Your task to perform on an android device: turn on priority inbox in the gmail app Image 0: 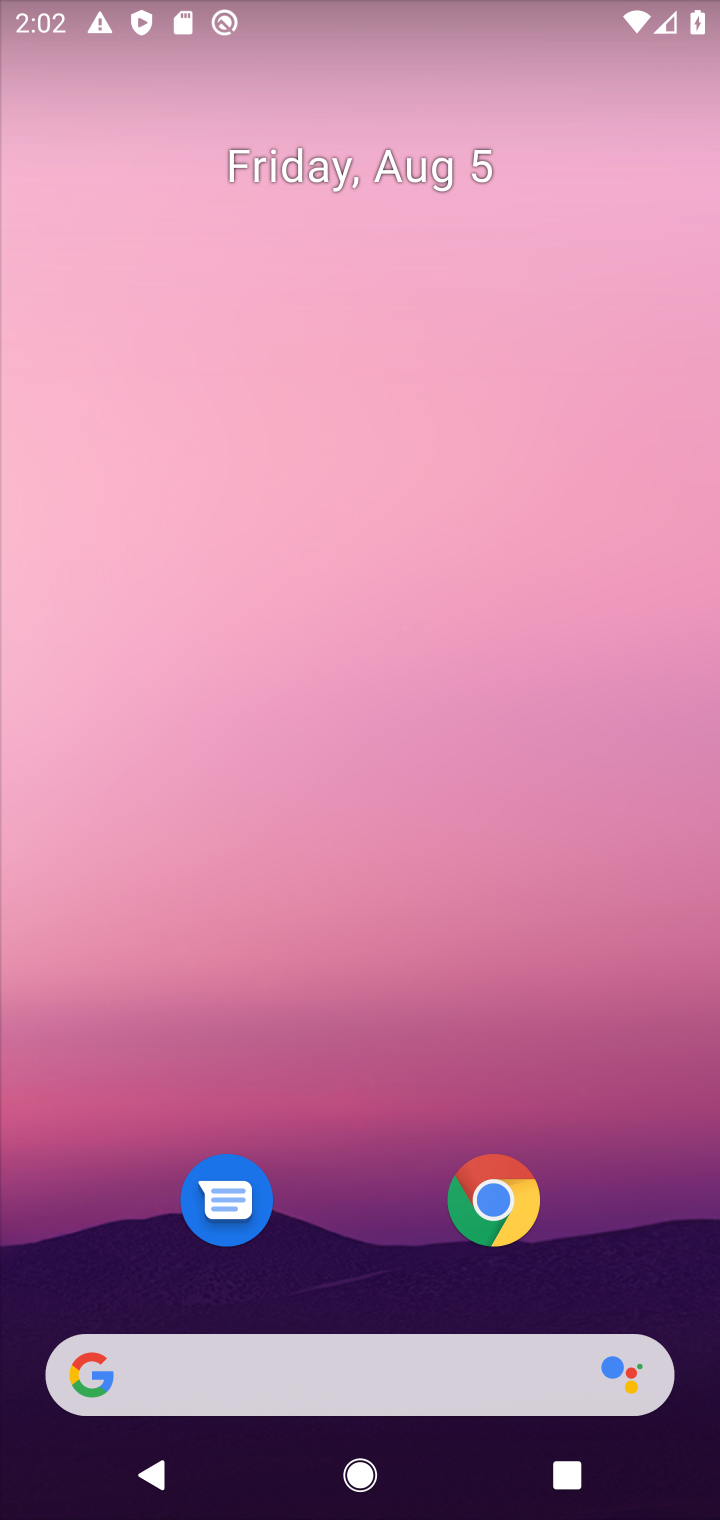
Step 0: drag from (386, 1033) to (340, 215)
Your task to perform on an android device: turn on priority inbox in the gmail app Image 1: 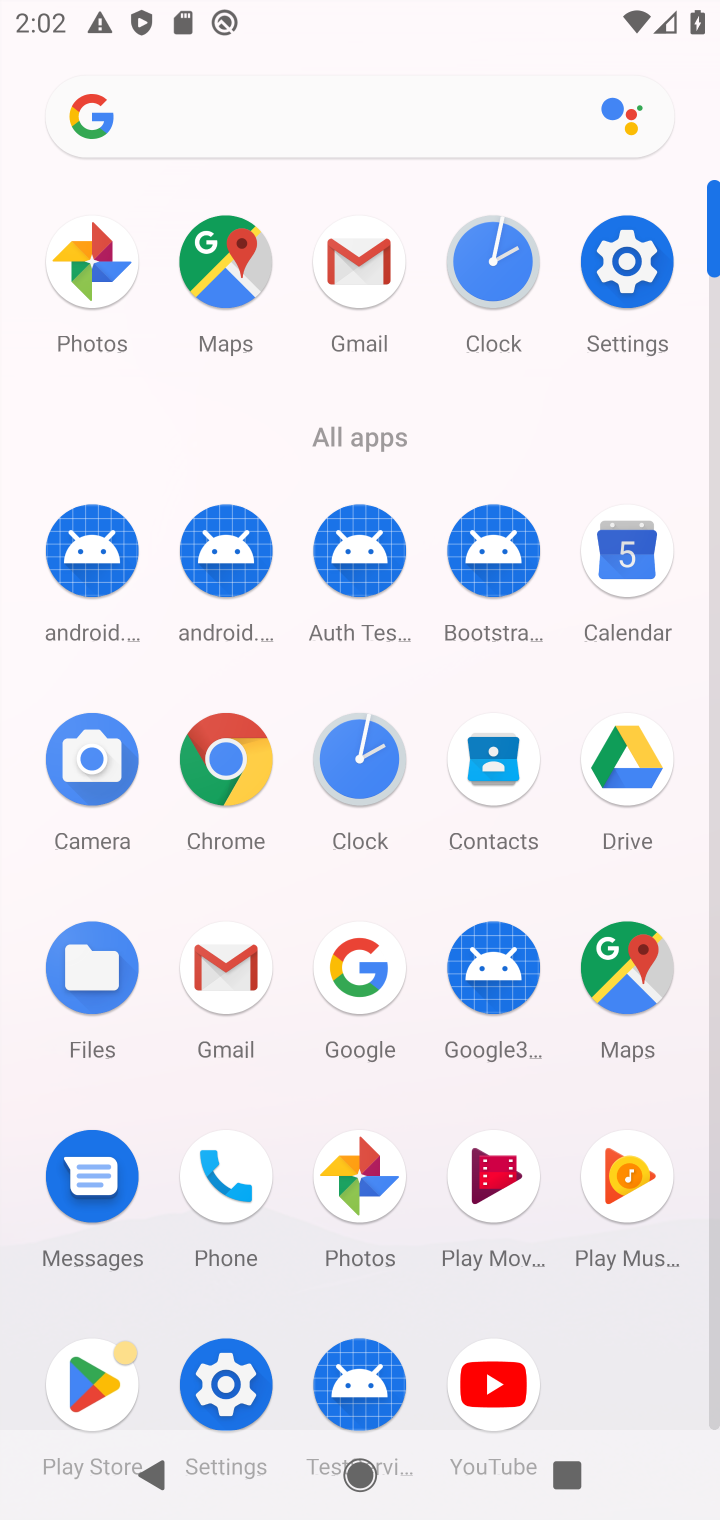
Step 1: click (340, 255)
Your task to perform on an android device: turn on priority inbox in the gmail app Image 2: 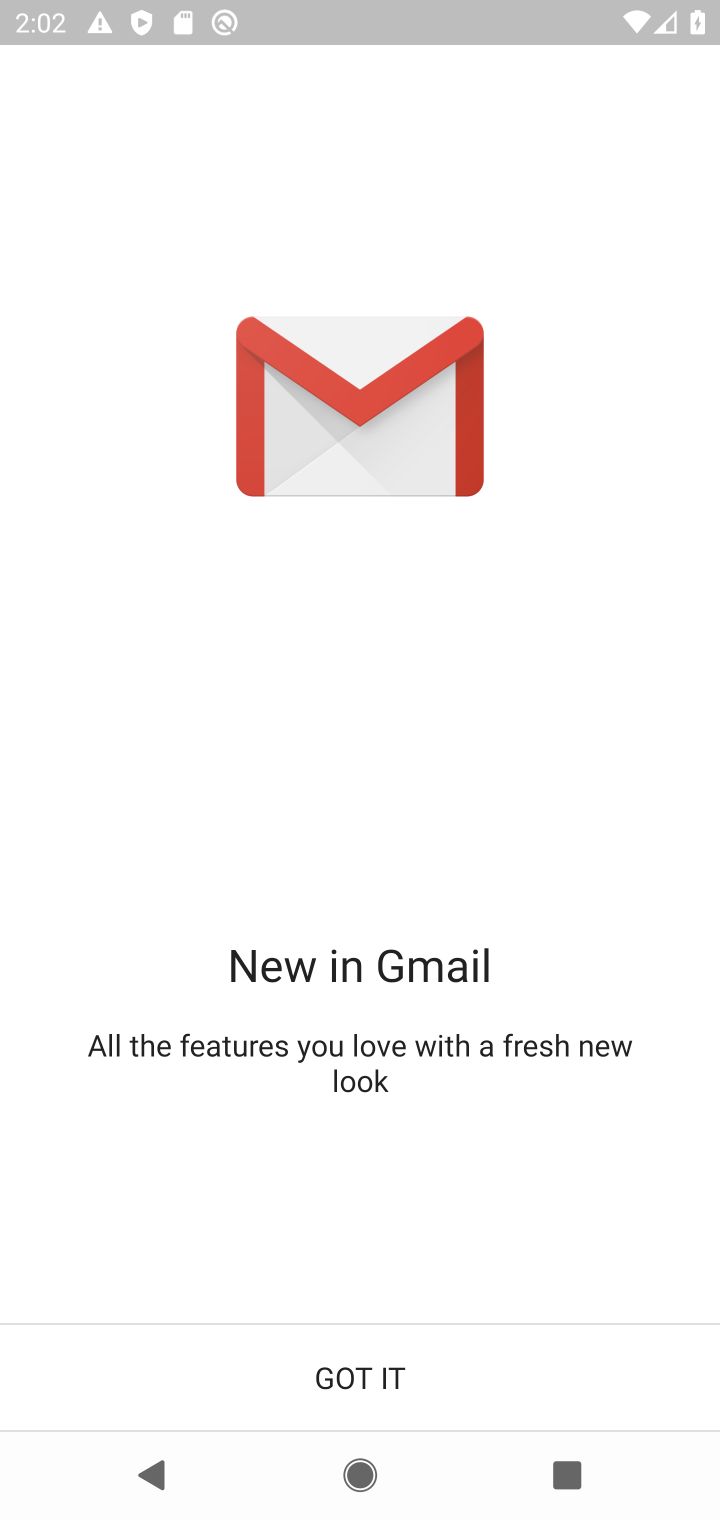
Step 2: click (471, 1354)
Your task to perform on an android device: turn on priority inbox in the gmail app Image 3: 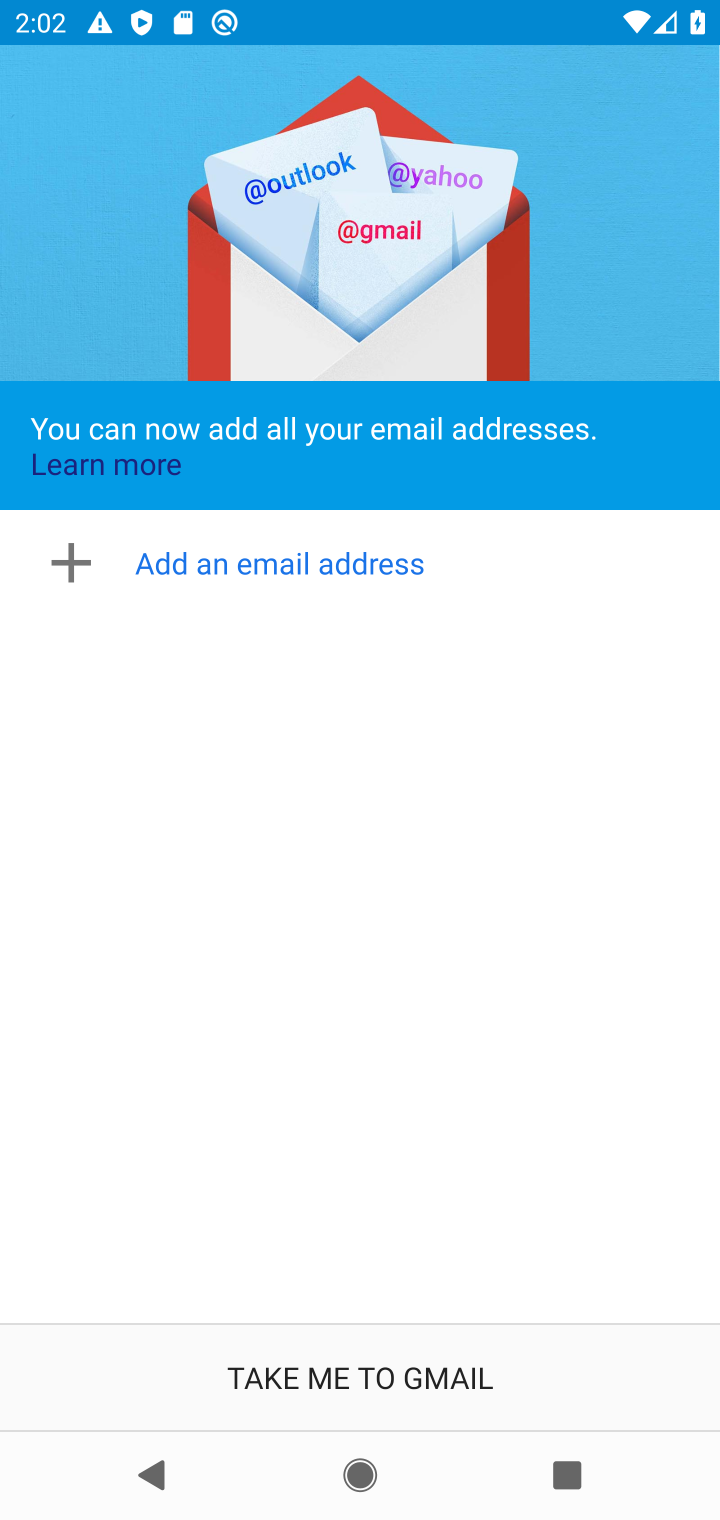
Step 3: click (468, 1351)
Your task to perform on an android device: turn on priority inbox in the gmail app Image 4: 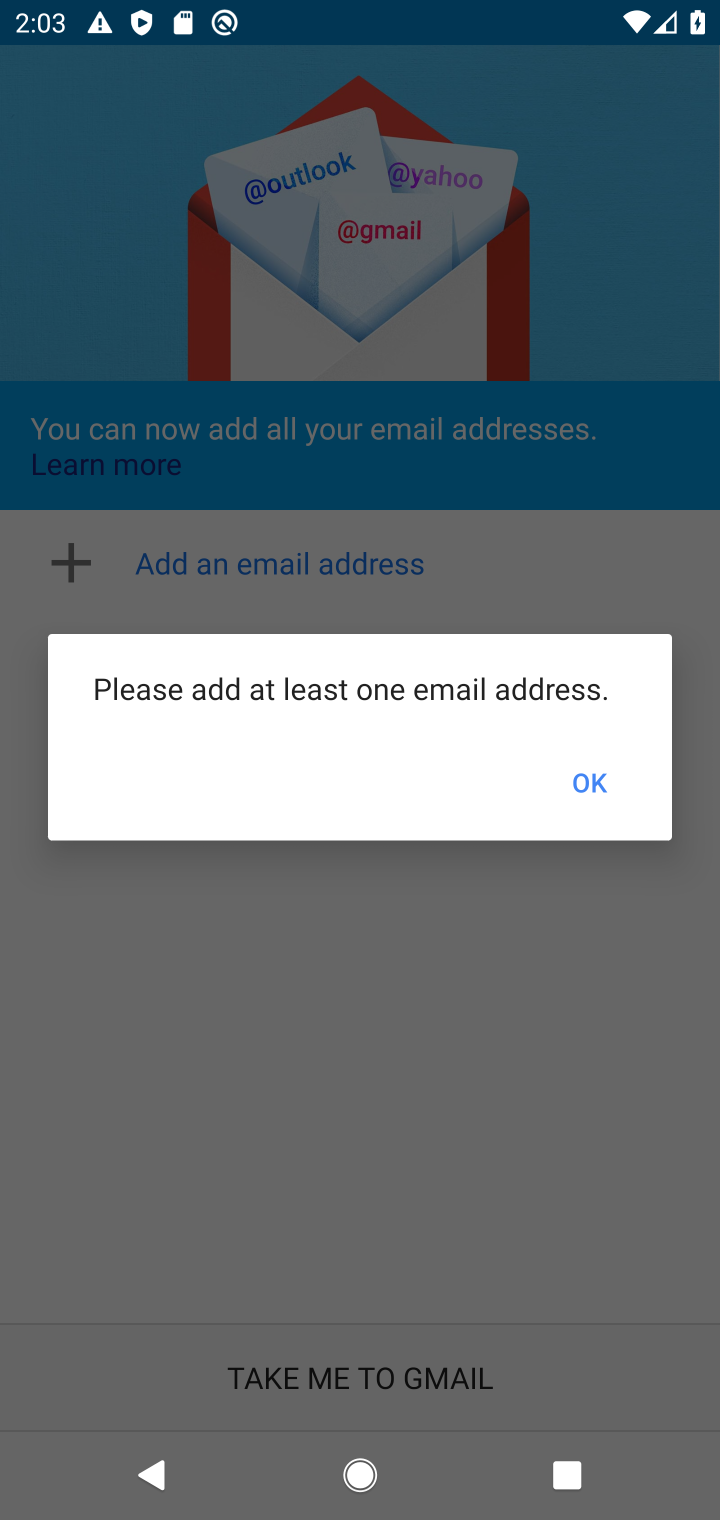
Step 4: click (584, 766)
Your task to perform on an android device: turn on priority inbox in the gmail app Image 5: 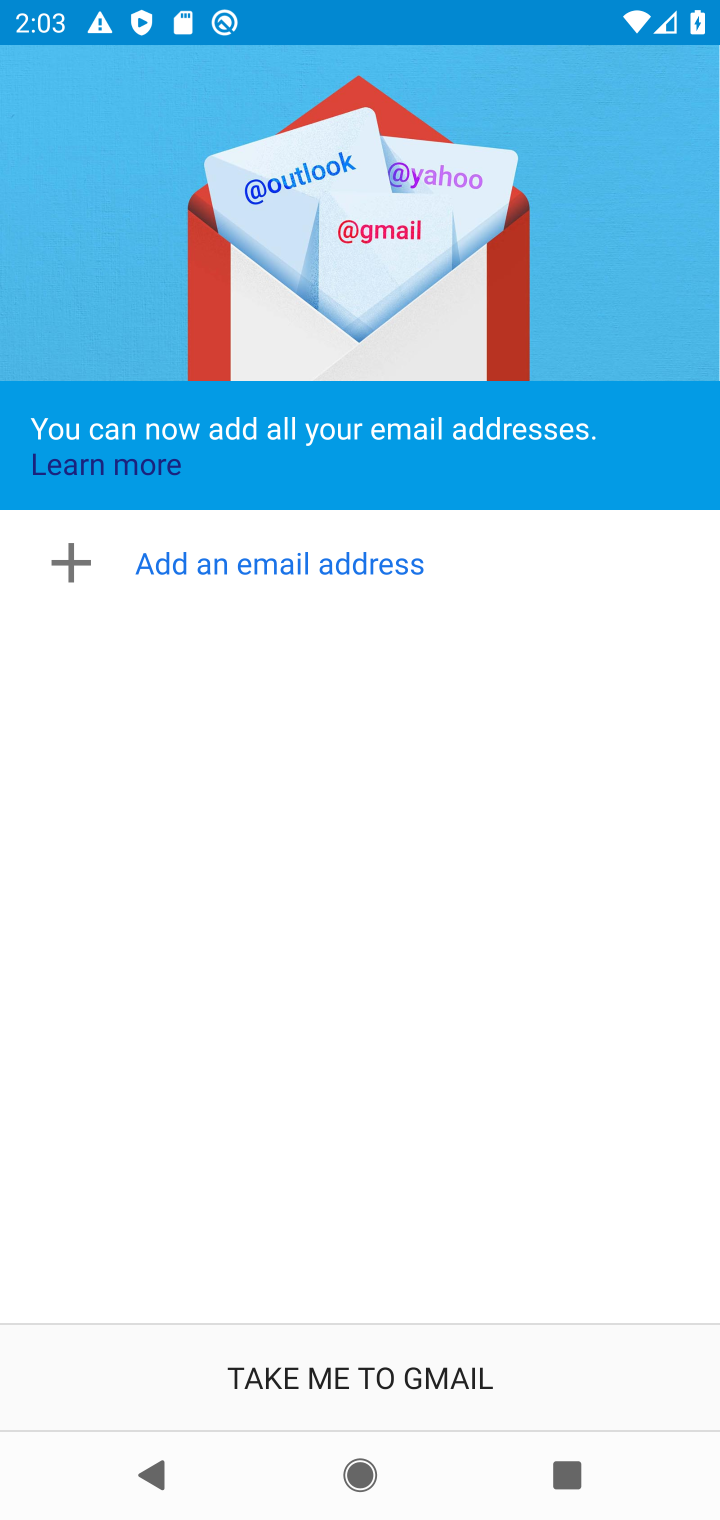
Step 5: task complete